Your task to perform on an android device: Open Yahoo.com Image 0: 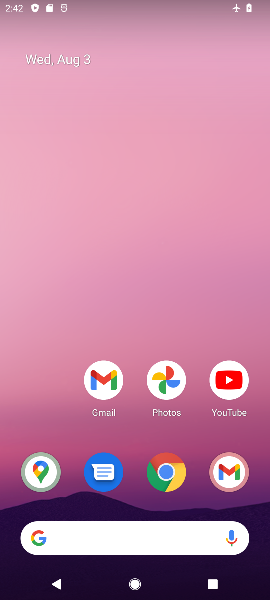
Step 0: drag from (196, 498) to (90, 5)
Your task to perform on an android device: Open Yahoo.com Image 1: 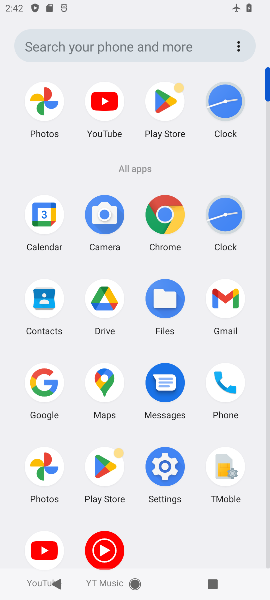
Step 1: click (39, 380)
Your task to perform on an android device: Open Yahoo.com Image 2: 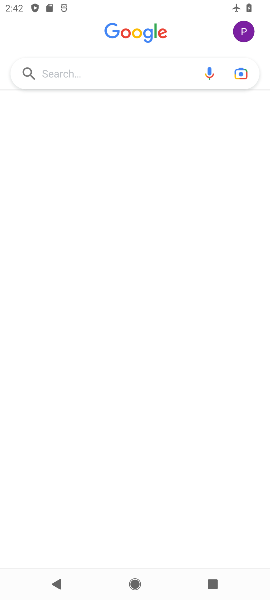
Step 2: click (83, 79)
Your task to perform on an android device: Open Yahoo.com Image 3: 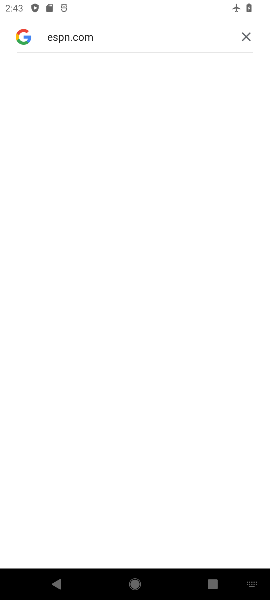
Step 3: type "Yahoo.com"
Your task to perform on an android device: Open Yahoo.com Image 4: 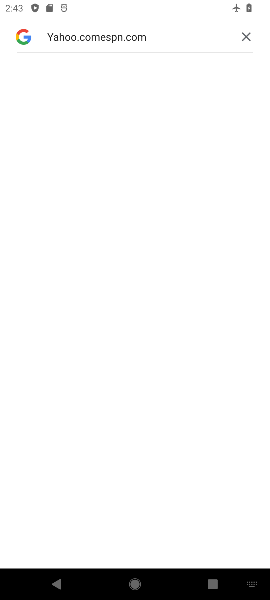
Step 4: click (250, 31)
Your task to perform on an android device: Open Yahoo.com Image 5: 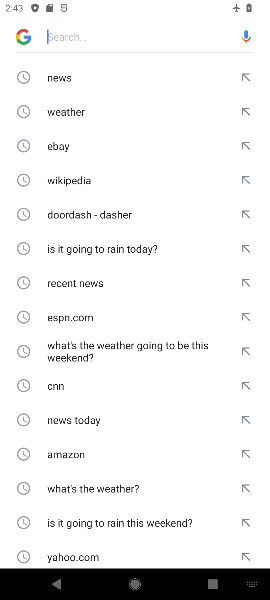
Step 5: type "Yahoo.com"
Your task to perform on an android device: Open Yahoo.com Image 6: 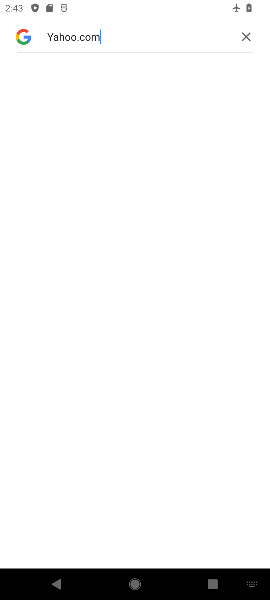
Step 6: task complete